Your task to perform on an android device: find which apps use the phone's location Image 0: 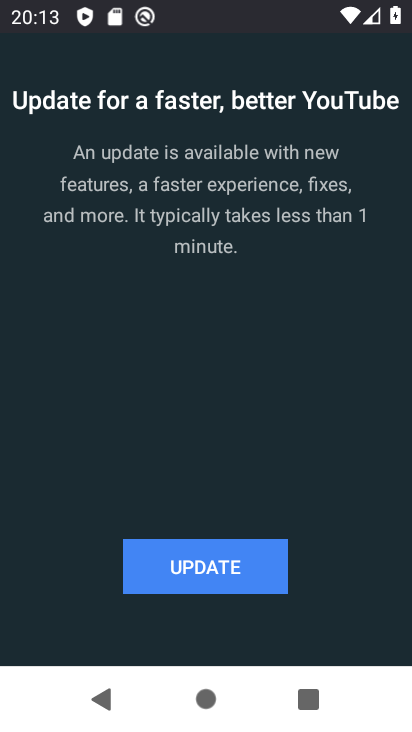
Step 0: press home button
Your task to perform on an android device: find which apps use the phone's location Image 1: 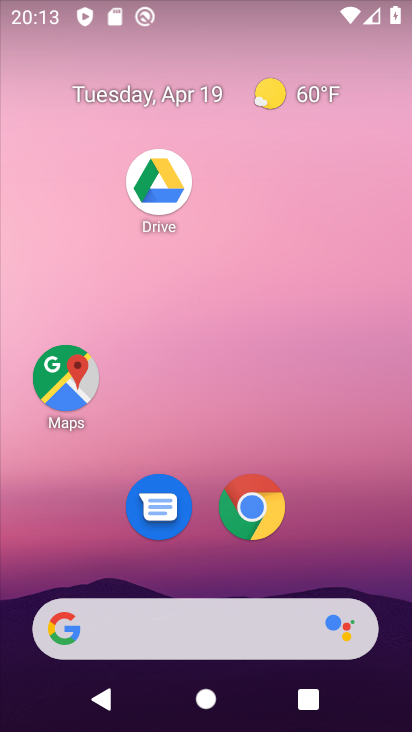
Step 1: drag from (348, 508) to (281, 130)
Your task to perform on an android device: find which apps use the phone's location Image 2: 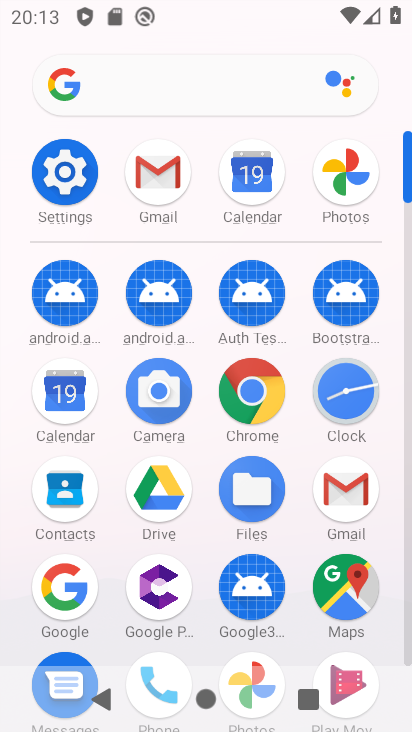
Step 2: click (70, 183)
Your task to perform on an android device: find which apps use the phone's location Image 3: 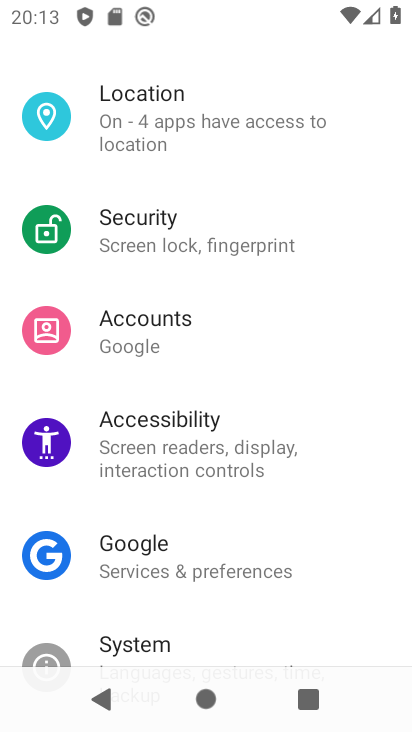
Step 3: click (245, 110)
Your task to perform on an android device: find which apps use the phone's location Image 4: 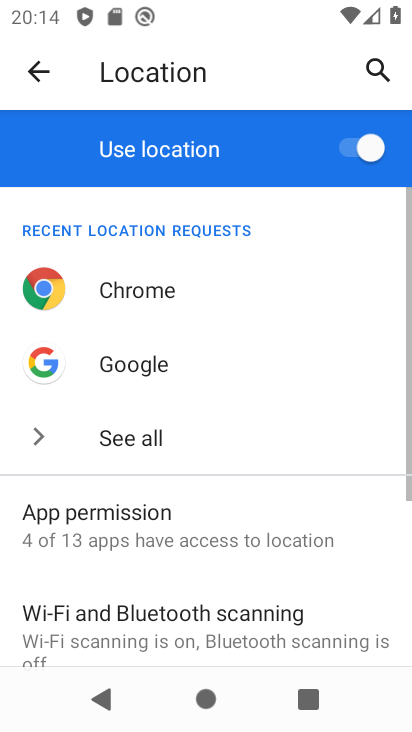
Step 4: click (230, 531)
Your task to perform on an android device: find which apps use the phone's location Image 5: 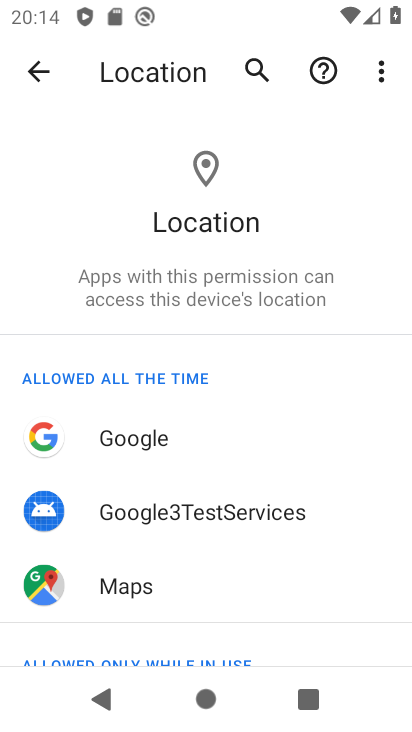
Step 5: task complete